Your task to perform on an android device: snooze an email in the gmail app Image 0: 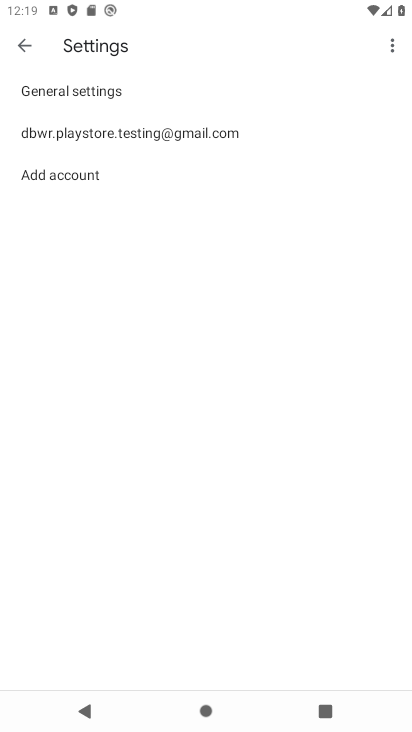
Step 0: press home button
Your task to perform on an android device: snooze an email in the gmail app Image 1: 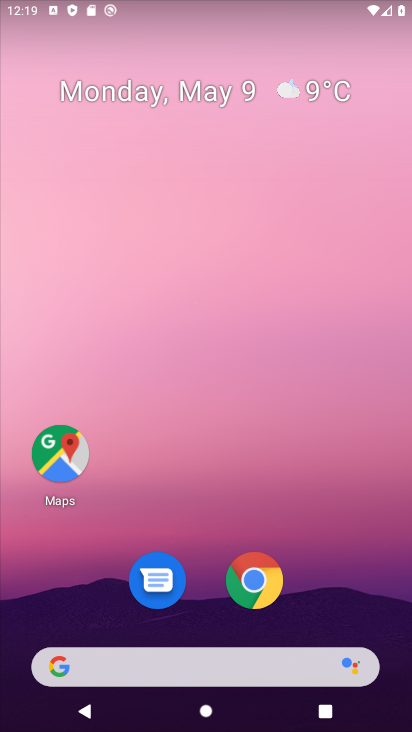
Step 1: drag from (321, 501) to (281, 102)
Your task to perform on an android device: snooze an email in the gmail app Image 2: 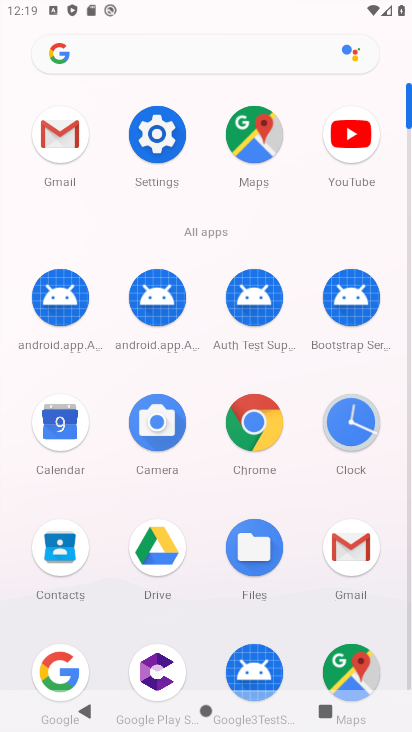
Step 2: click (353, 540)
Your task to perform on an android device: snooze an email in the gmail app Image 3: 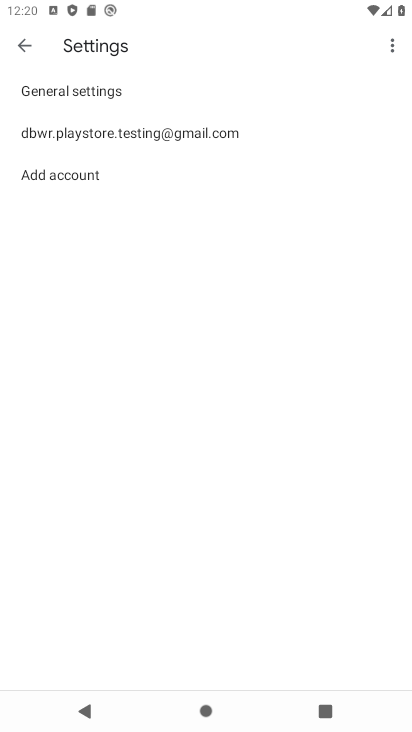
Step 3: click (18, 44)
Your task to perform on an android device: snooze an email in the gmail app Image 4: 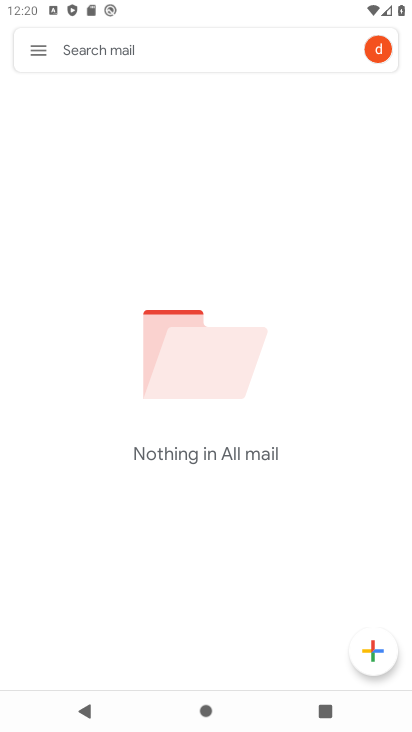
Step 4: click (37, 42)
Your task to perform on an android device: snooze an email in the gmail app Image 5: 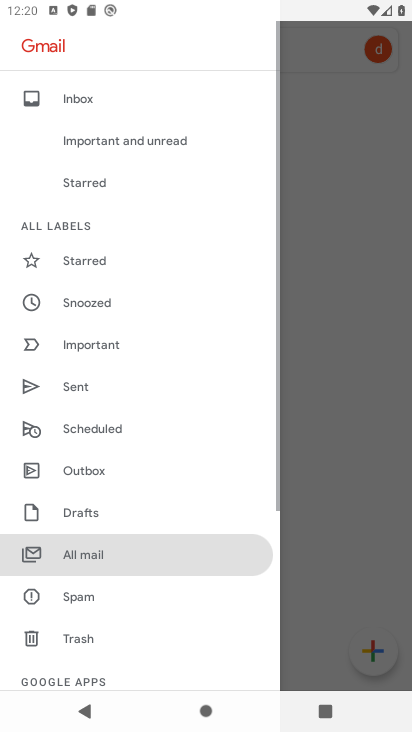
Step 5: click (130, 542)
Your task to perform on an android device: snooze an email in the gmail app Image 6: 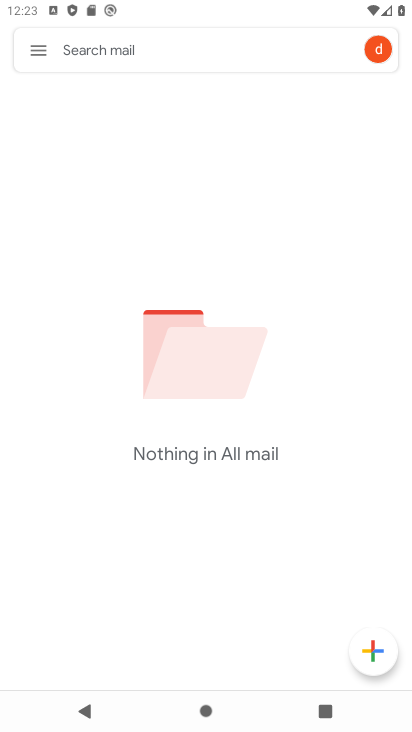
Step 6: task complete